Your task to perform on an android device: Go to eBay Image 0: 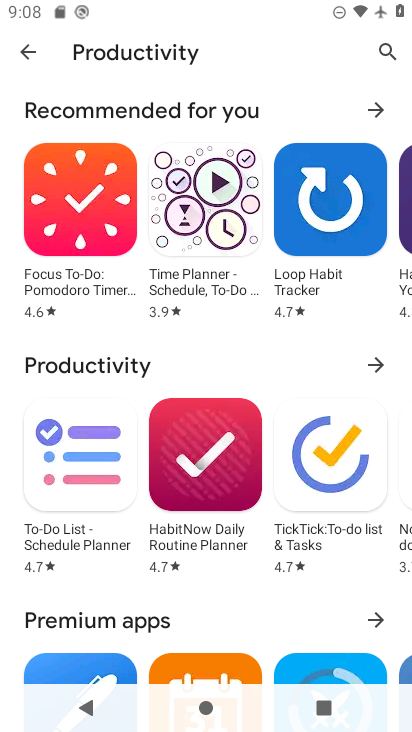
Step 0: press home button
Your task to perform on an android device: Go to eBay Image 1: 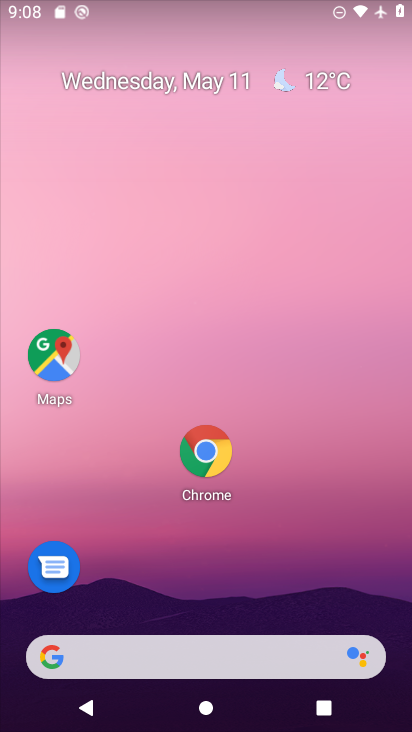
Step 1: drag from (180, 656) to (339, 145)
Your task to perform on an android device: Go to eBay Image 2: 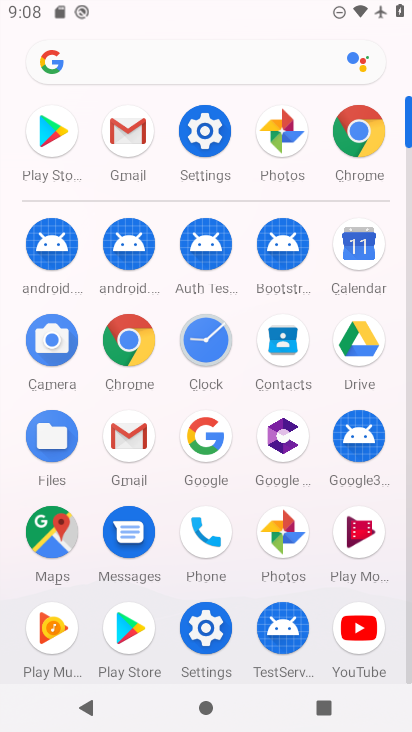
Step 2: click (354, 132)
Your task to perform on an android device: Go to eBay Image 3: 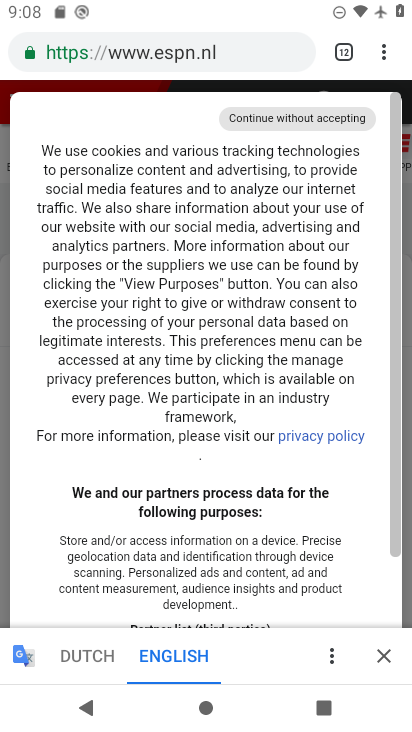
Step 3: drag from (385, 56) to (273, 108)
Your task to perform on an android device: Go to eBay Image 4: 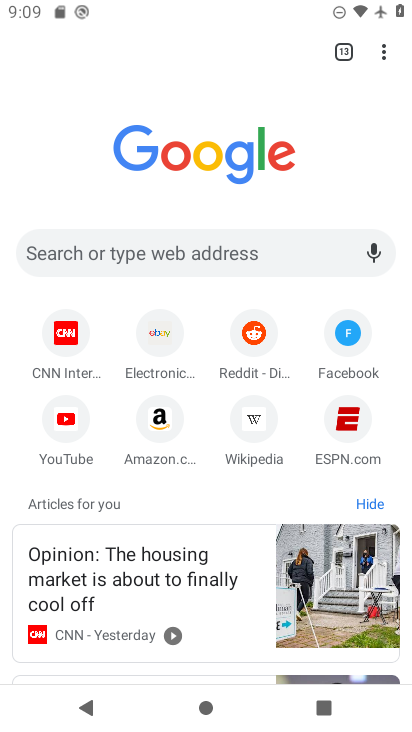
Step 4: click (118, 248)
Your task to perform on an android device: Go to eBay Image 5: 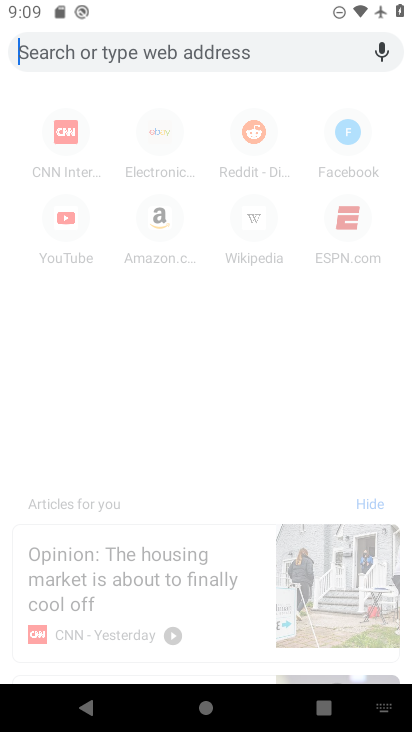
Step 5: type "ebay"
Your task to perform on an android device: Go to eBay Image 6: 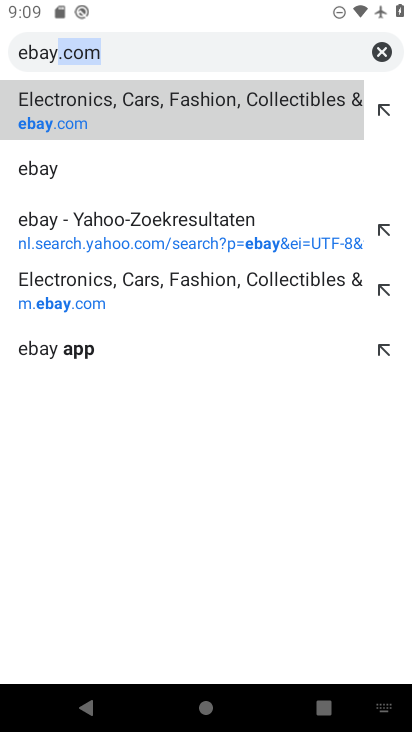
Step 6: click (126, 118)
Your task to perform on an android device: Go to eBay Image 7: 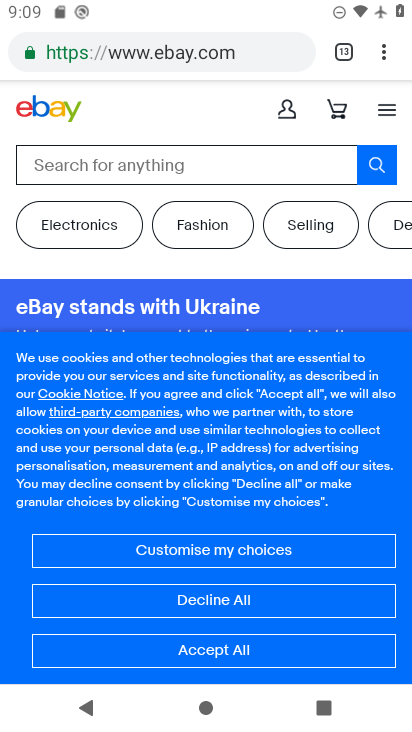
Step 7: task complete